Your task to perform on an android device: turn off notifications in google photos Image 0: 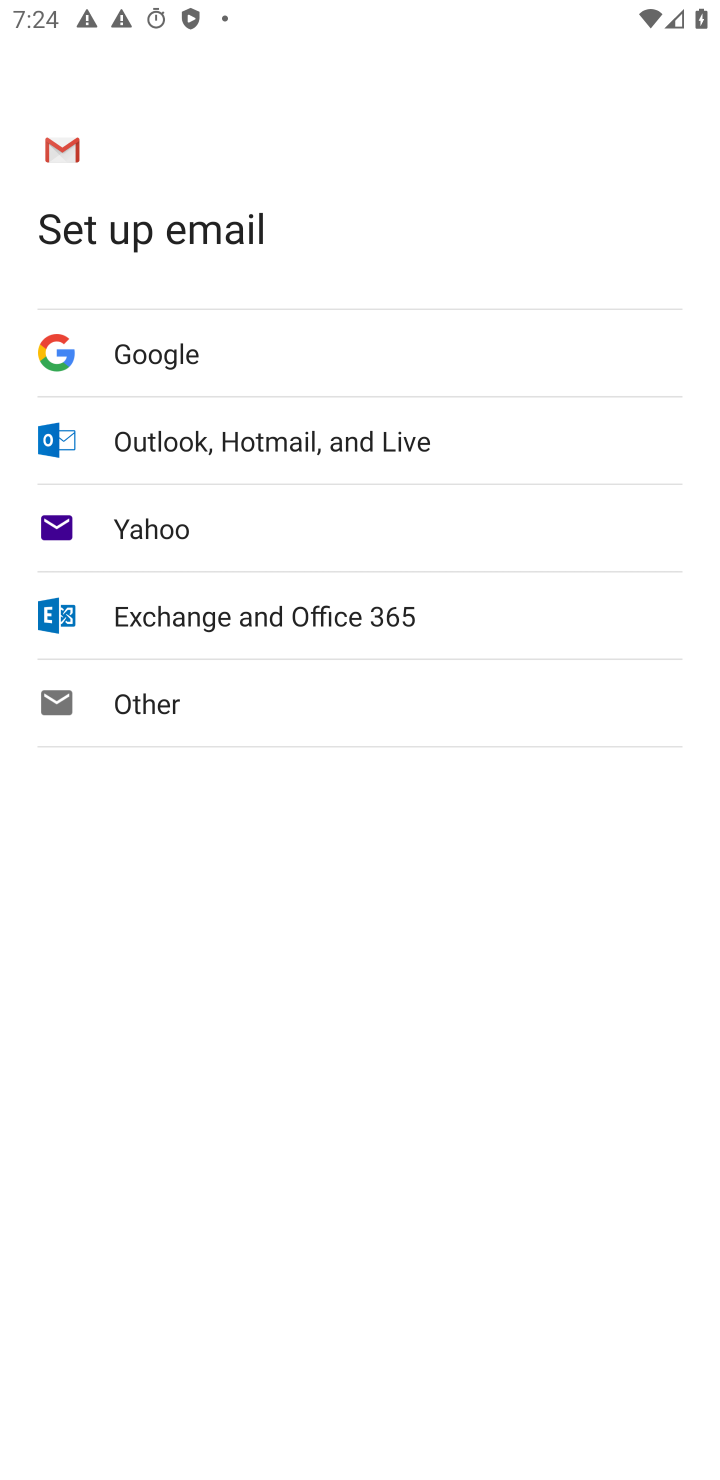
Step 0: press home button
Your task to perform on an android device: turn off notifications in google photos Image 1: 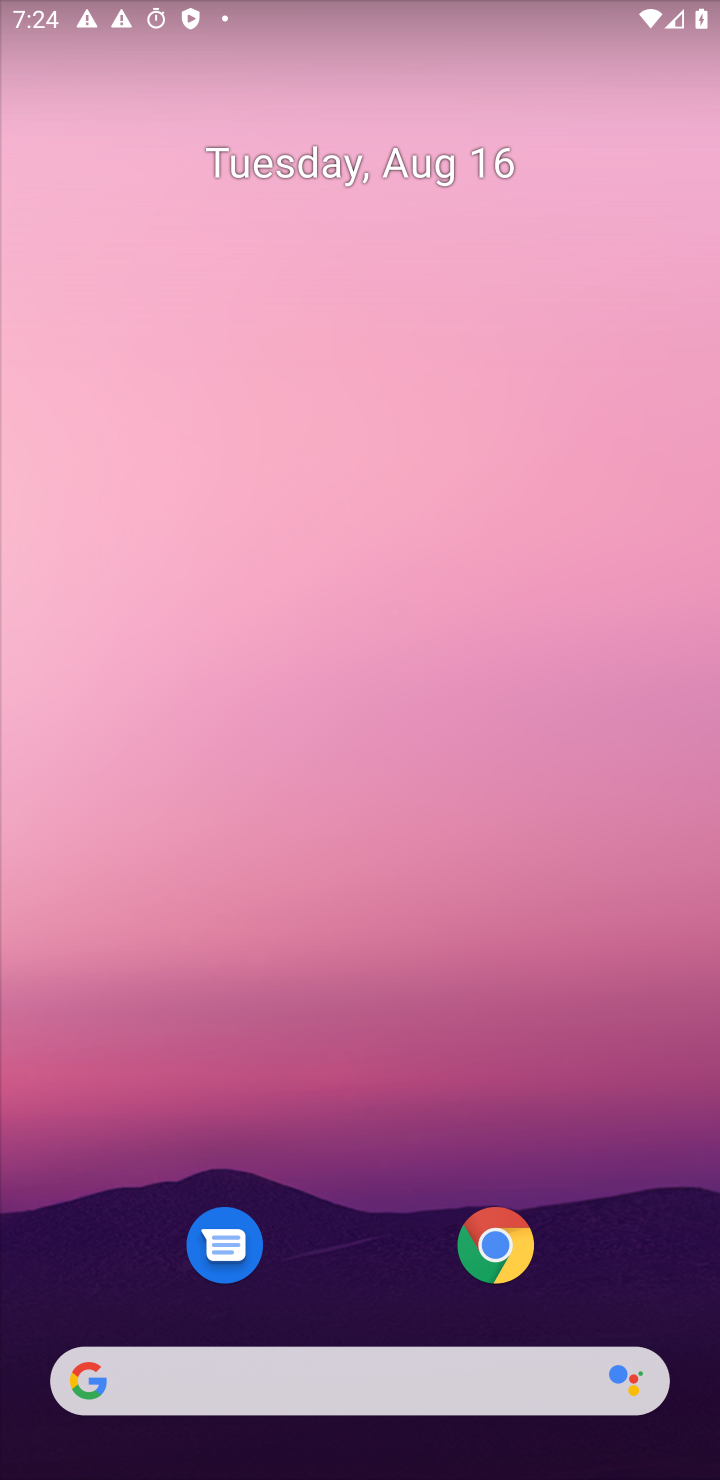
Step 1: drag from (359, 1168) to (376, 114)
Your task to perform on an android device: turn off notifications in google photos Image 2: 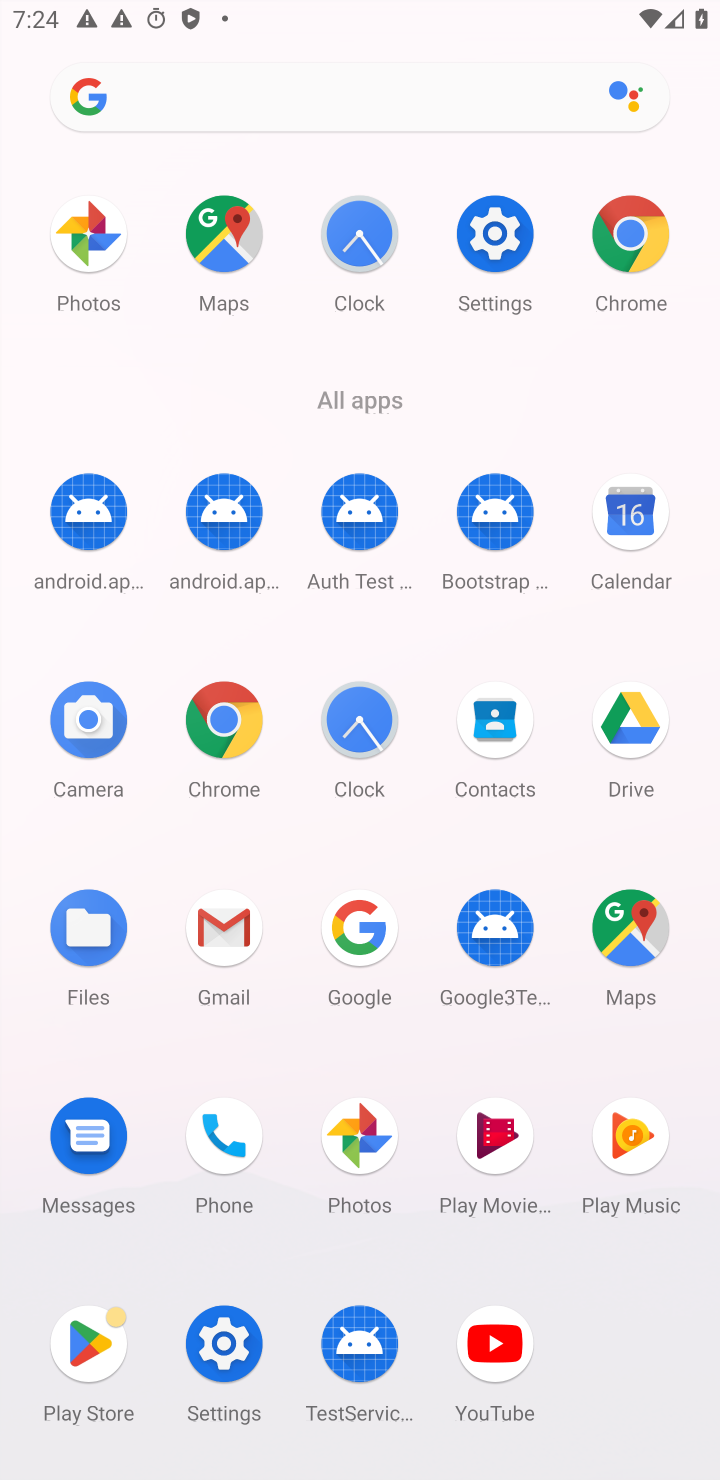
Step 2: click (354, 1140)
Your task to perform on an android device: turn off notifications in google photos Image 3: 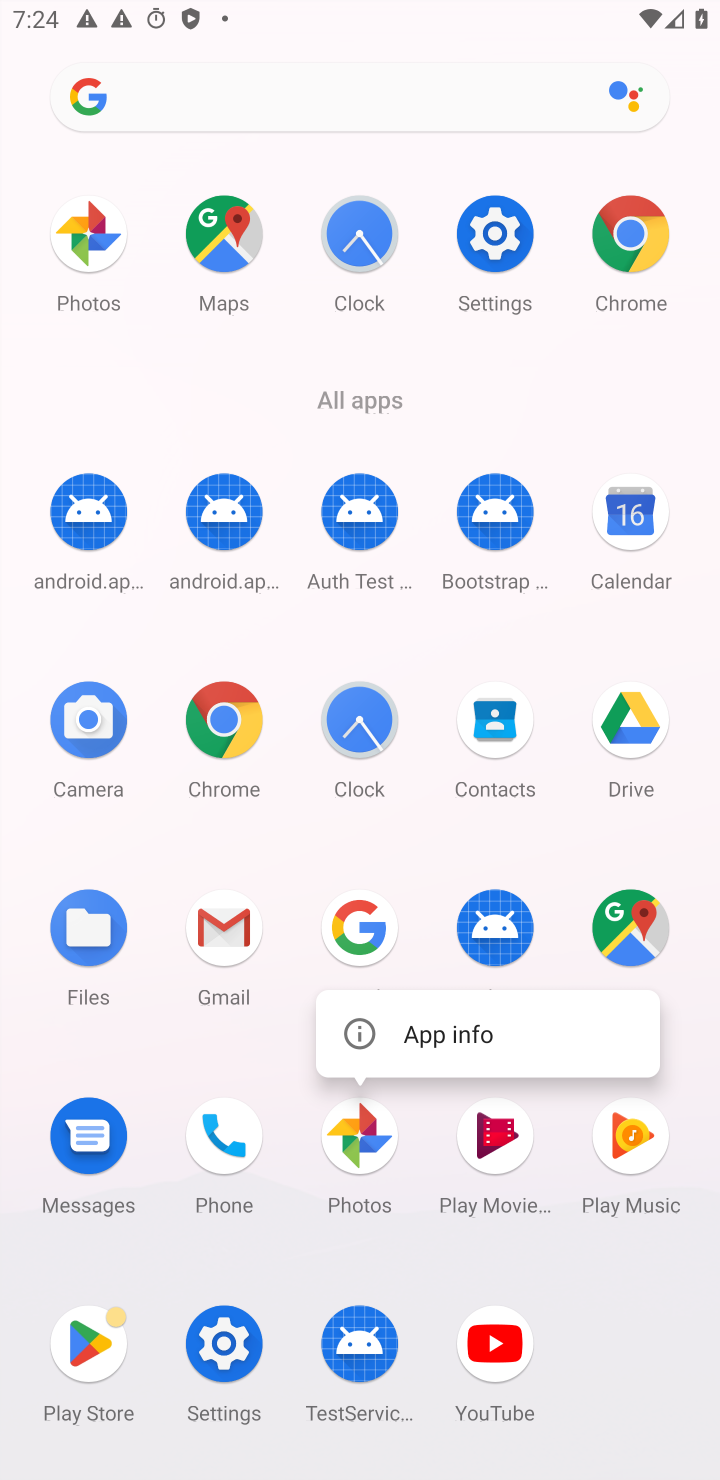
Step 3: click (375, 1137)
Your task to perform on an android device: turn off notifications in google photos Image 4: 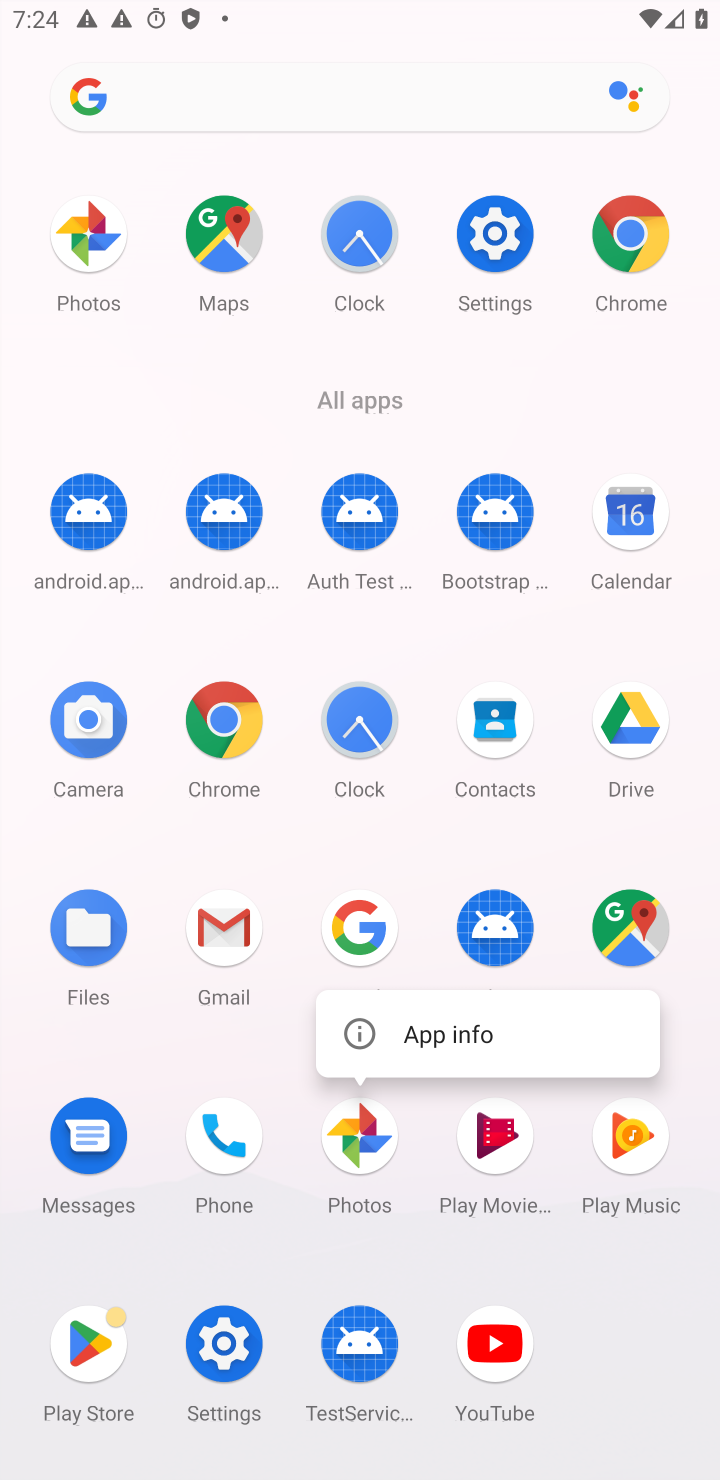
Step 4: click (365, 1140)
Your task to perform on an android device: turn off notifications in google photos Image 5: 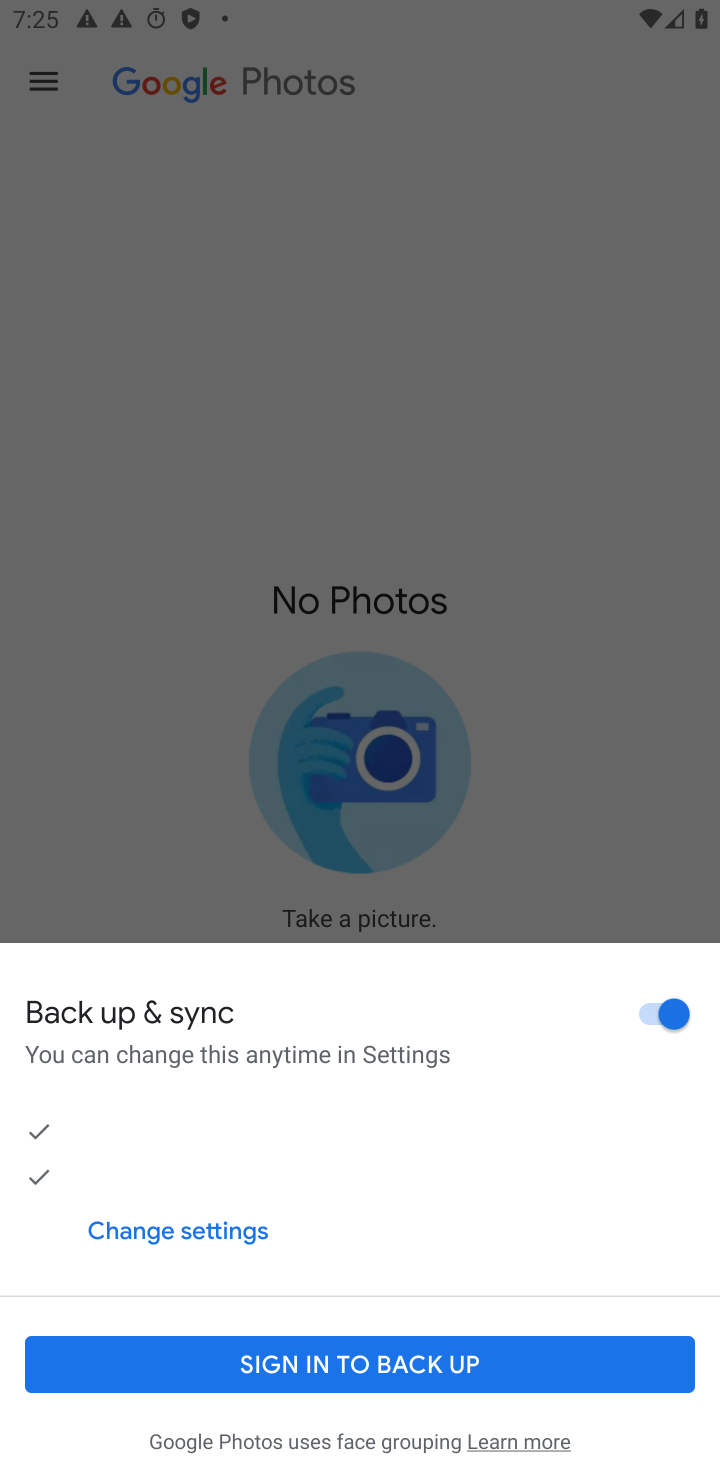
Step 5: click (556, 777)
Your task to perform on an android device: turn off notifications in google photos Image 6: 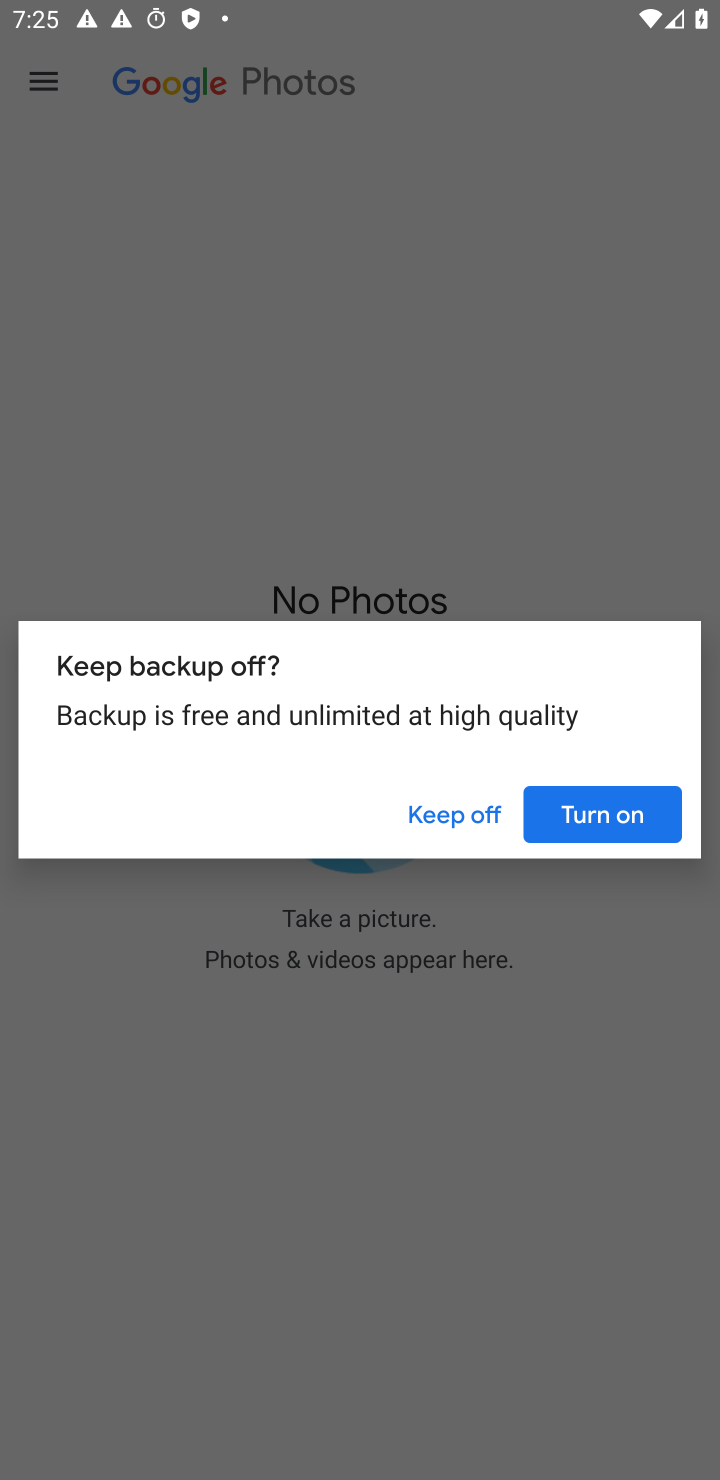
Step 6: click (560, 809)
Your task to perform on an android device: turn off notifications in google photos Image 7: 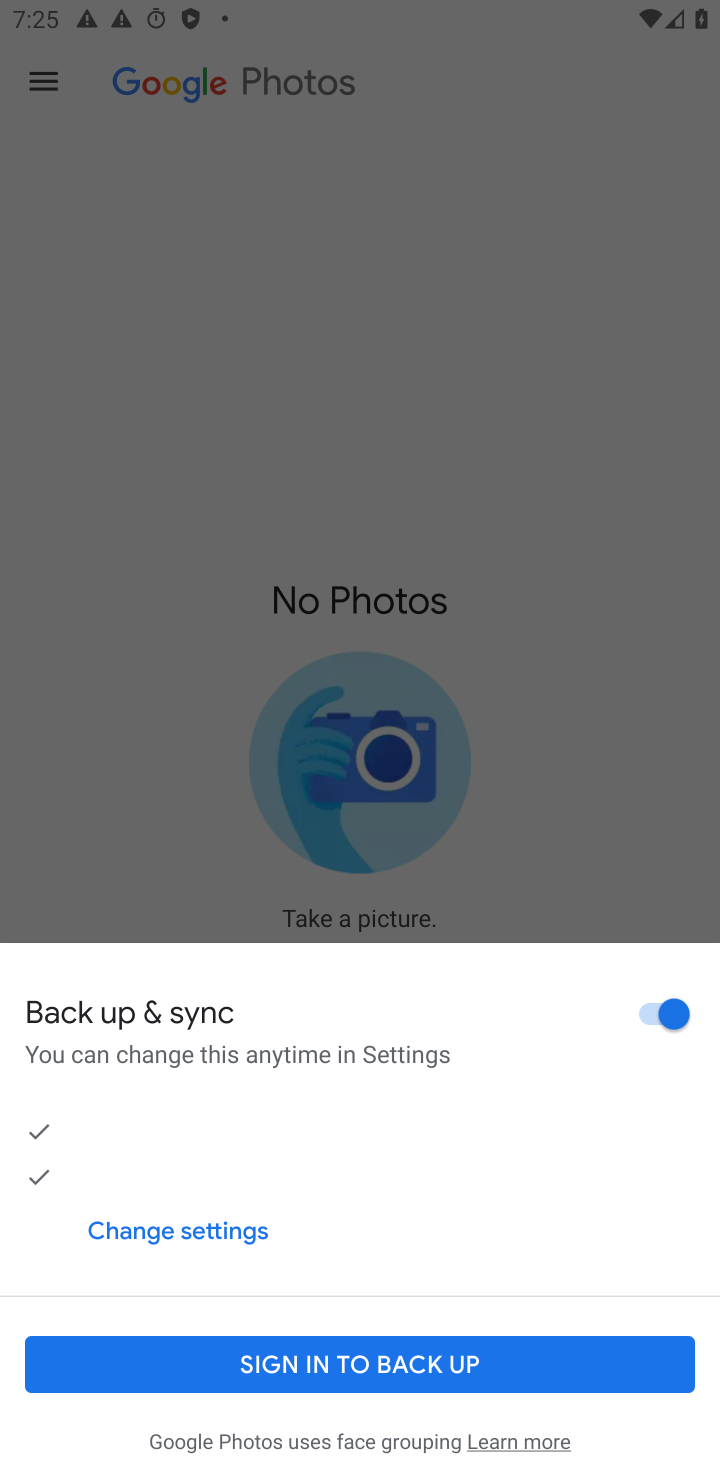
Step 7: click (517, 1365)
Your task to perform on an android device: turn off notifications in google photos Image 8: 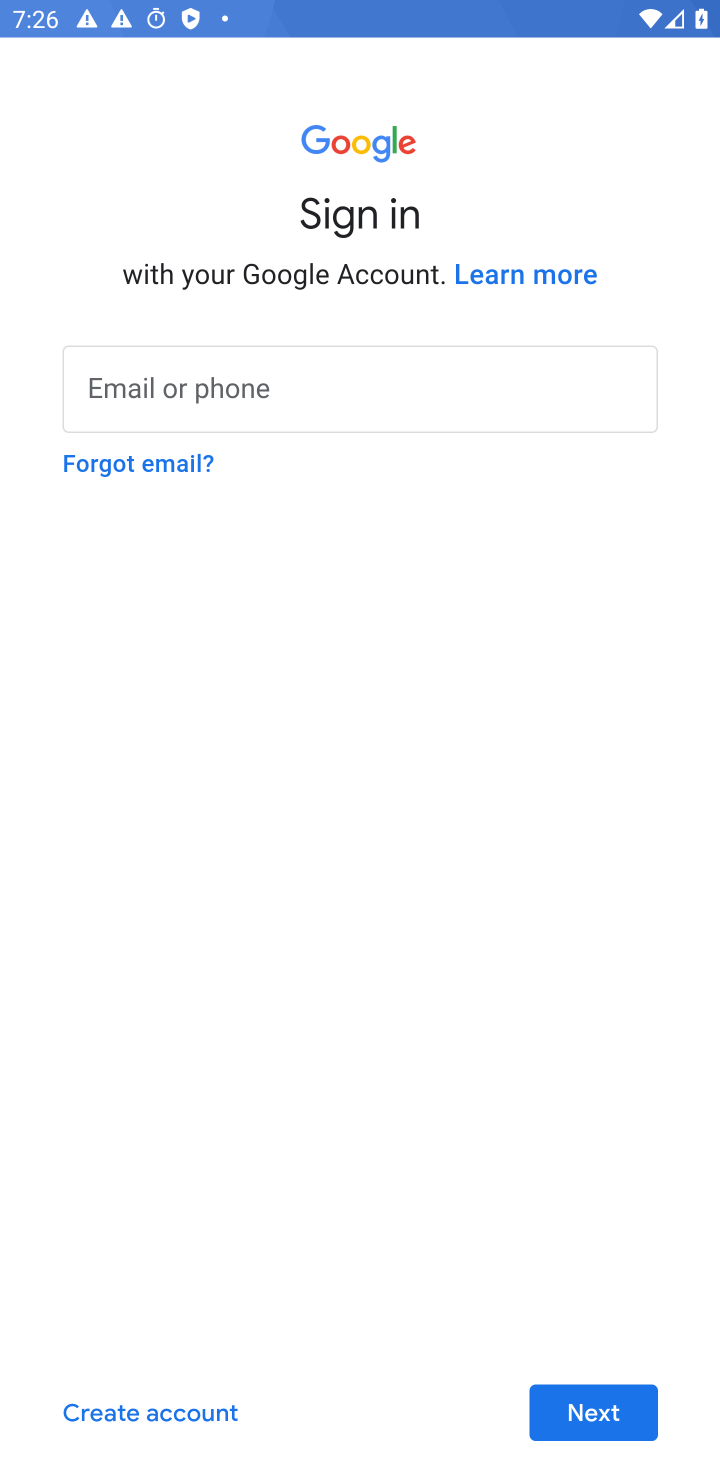
Step 8: task complete